Your task to perform on an android device: toggle sleep mode Image 0: 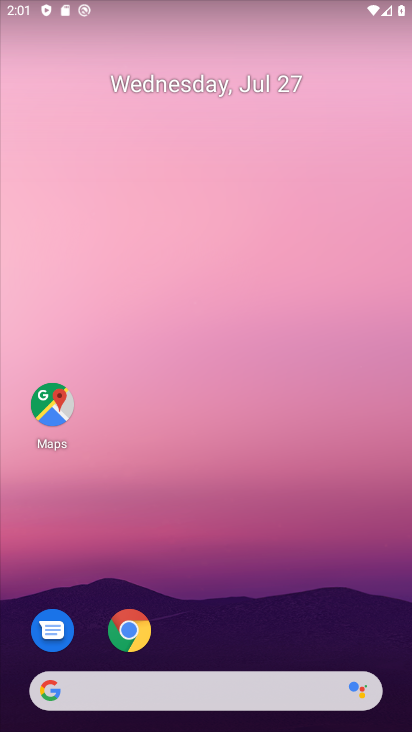
Step 0: drag from (324, 13) to (382, 662)
Your task to perform on an android device: toggle sleep mode Image 1: 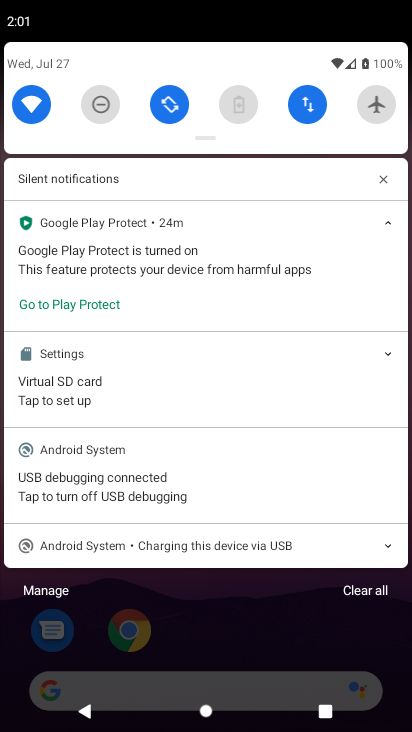
Step 1: drag from (214, 128) to (305, 485)
Your task to perform on an android device: toggle sleep mode Image 2: 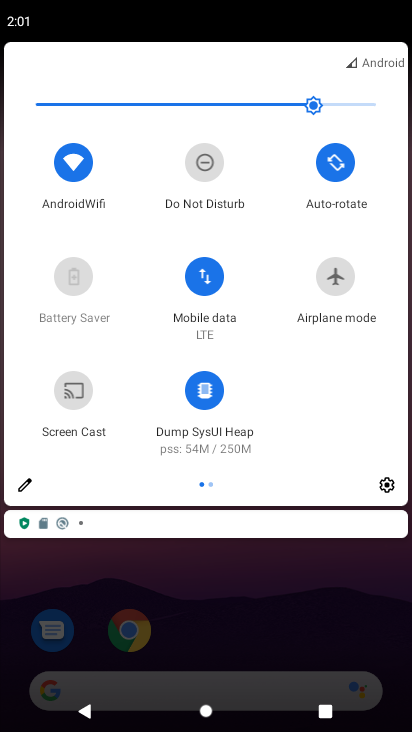
Step 2: drag from (314, 398) to (10, 335)
Your task to perform on an android device: toggle sleep mode Image 3: 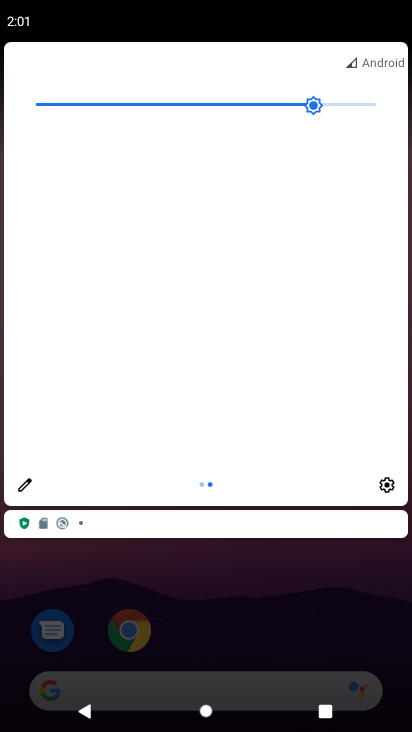
Step 3: click (28, 489)
Your task to perform on an android device: toggle sleep mode Image 4: 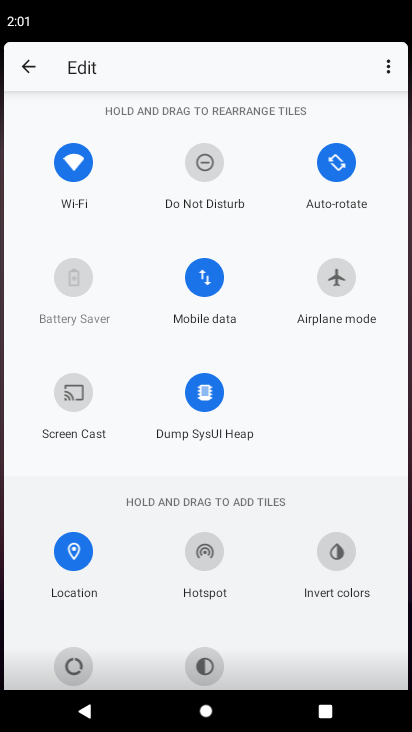
Step 4: task complete